Your task to perform on an android device: Search for sushi restaurants on Maps Image 0: 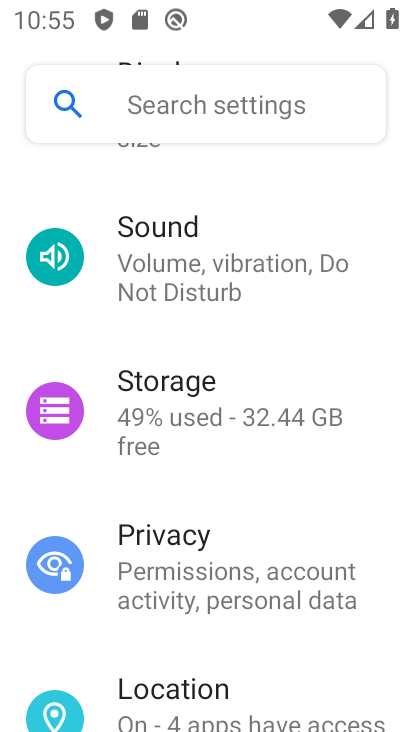
Step 0: press home button
Your task to perform on an android device: Search for sushi restaurants on Maps Image 1: 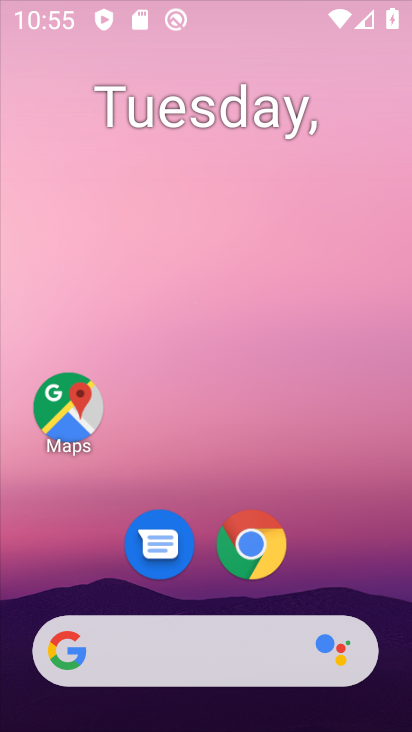
Step 1: drag from (396, 640) to (166, 9)
Your task to perform on an android device: Search for sushi restaurants on Maps Image 2: 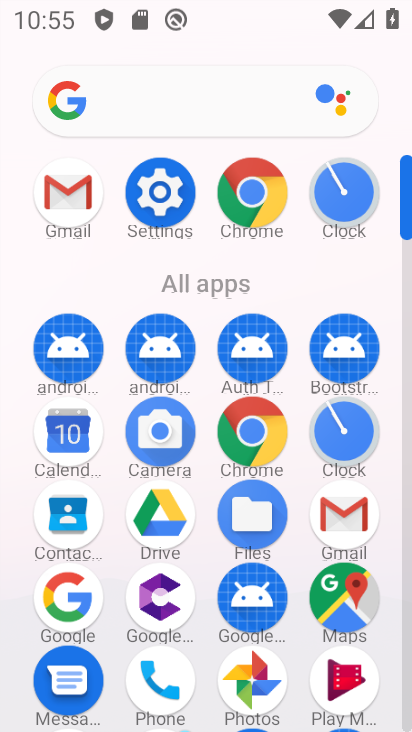
Step 2: click (311, 618)
Your task to perform on an android device: Search for sushi restaurants on Maps Image 3: 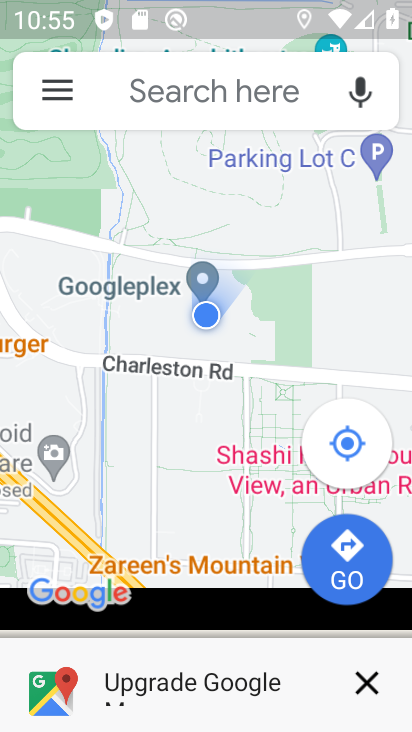
Step 3: click (182, 93)
Your task to perform on an android device: Search for sushi restaurants on Maps Image 4: 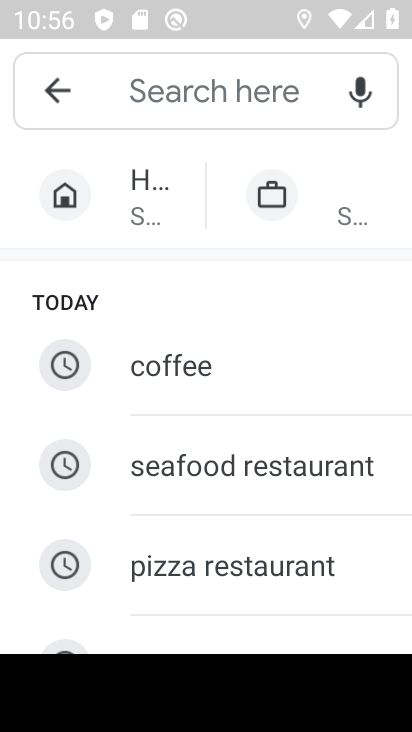
Step 4: drag from (231, 534) to (173, 169)
Your task to perform on an android device: Search for sushi restaurants on Maps Image 5: 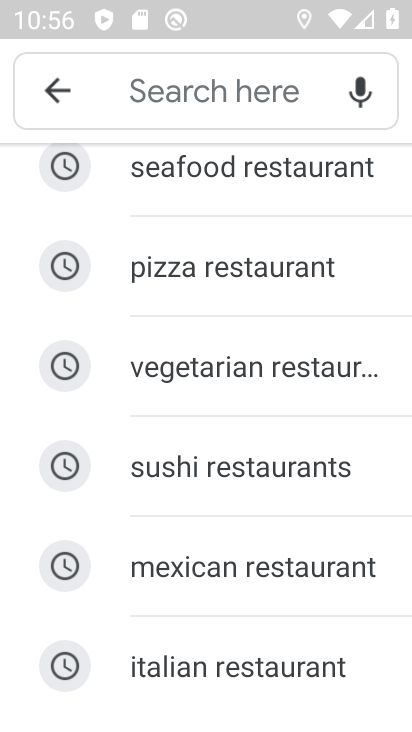
Step 5: click (259, 468)
Your task to perform on an android device: Search for sushi restaurants on Maps Image 6: 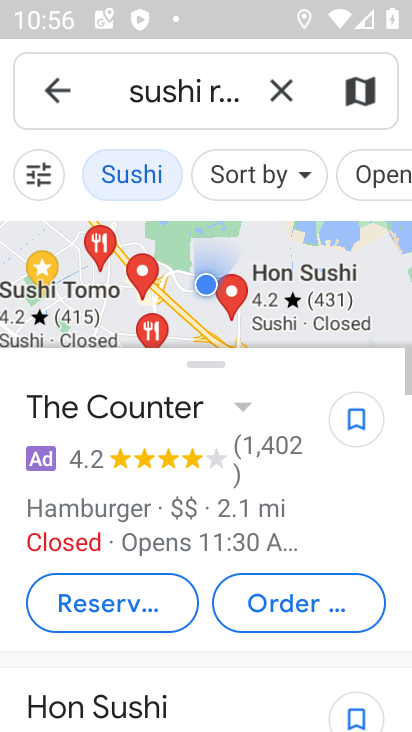
Step 6: task complete